Your task to perform on an android device: turn on improve location accuracy Image 0: 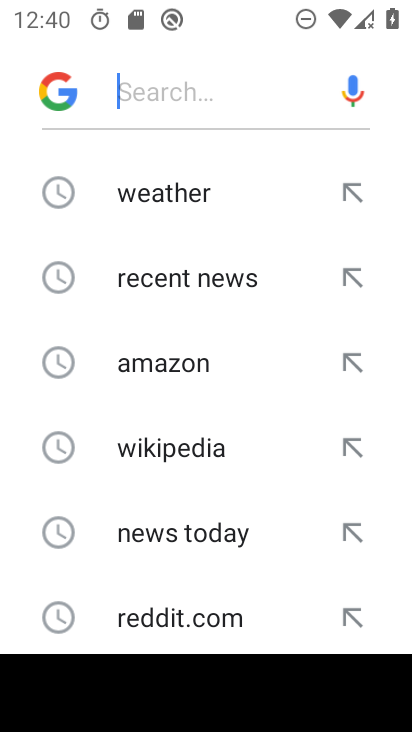
Step 0: press home button
Your task to perform on an android device: turn on improve location accuracy Image 1: 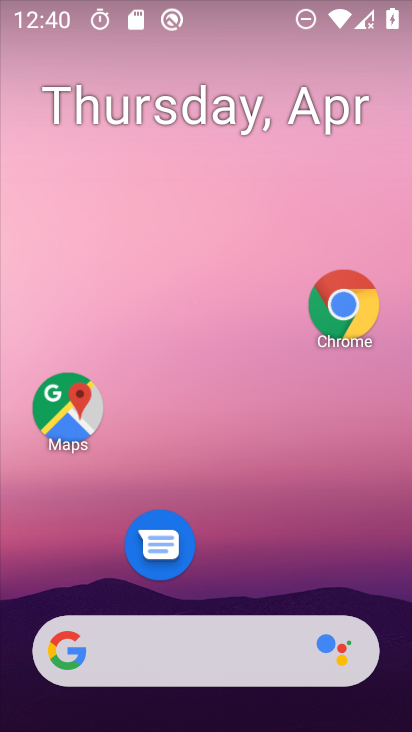
Step 1: drag from (258, 418) to (266, 125)
Your task to perform on an android device: turn on improve location accuracy Image 2: 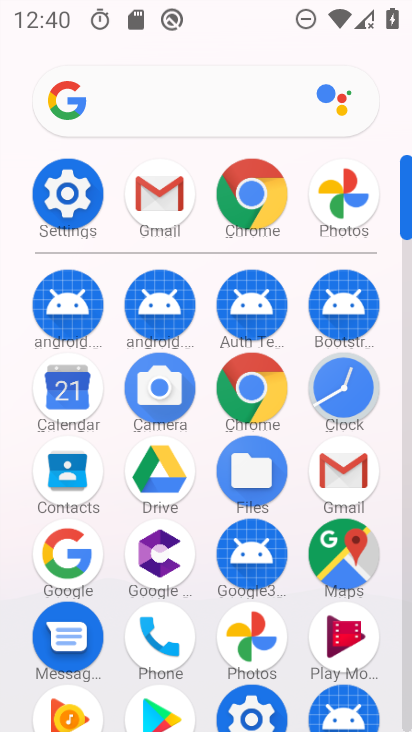
Step 2: click (69, 196)
Your task to perform on an android device: turn on improve location accuracy Image 3: 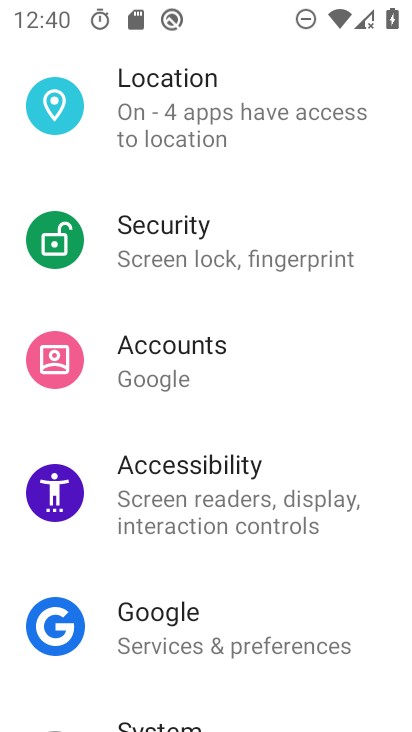
Step 3: drag from (205, 475) to (226, 163)
Your task to perform on an android device: turn on improve location accuracy Image 4: 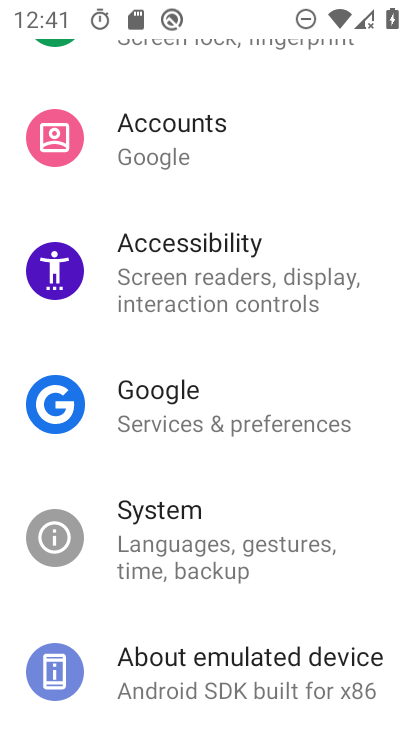
Step 4: drag from (189, 409) to (170, 720)
Your task to perform on an android device: turn on improve location accuracy Image 5: 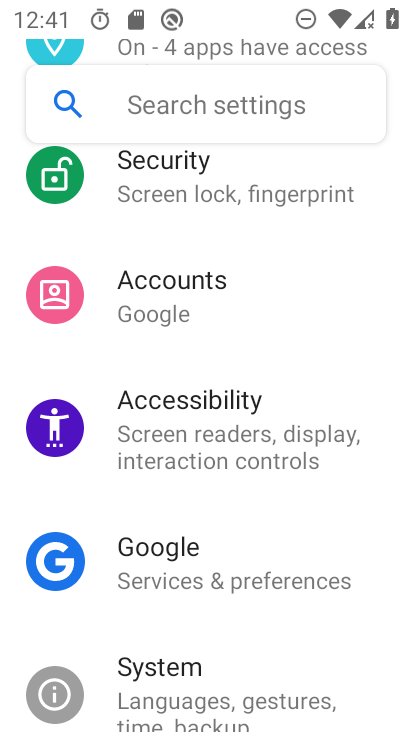
Step 5: drag from (199, 360) to (172, 699)
Your task to perform on an android device: turn on improve location accuracy Image 6: 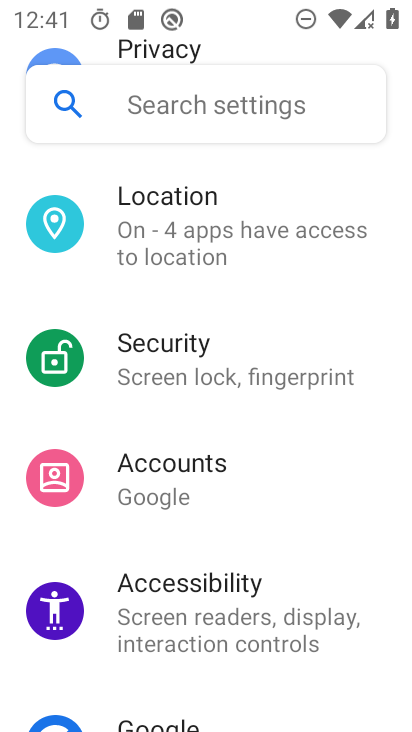
Step 6: drag from (203, 337) to (203, 626)
Your task to perform on an android device: turn on improve location accuracy Image 7: 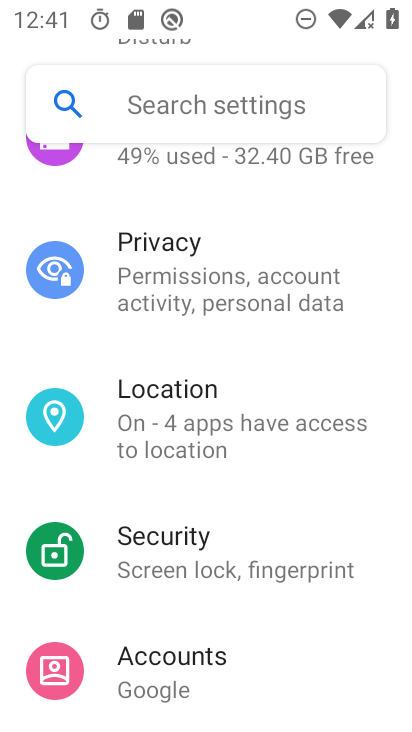
Step 7: click (245, 416)
Your task to perform on an android device: turn on improve location accuracy Image 8: 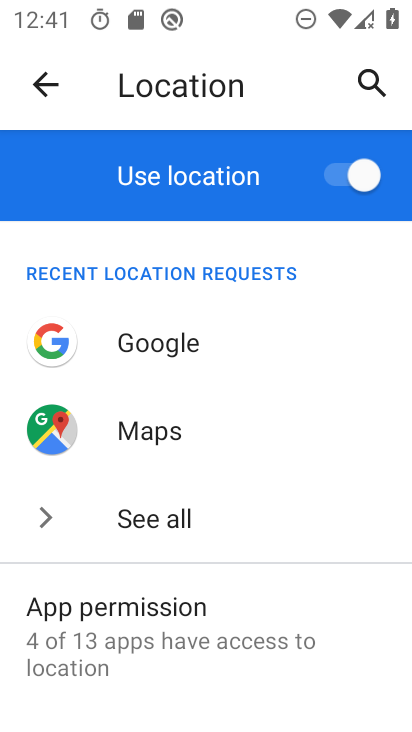
Step 8: drag from (226, 608) to (282, 191)
Your task to perform on an android device: turn on improve location accuracy Image 9: 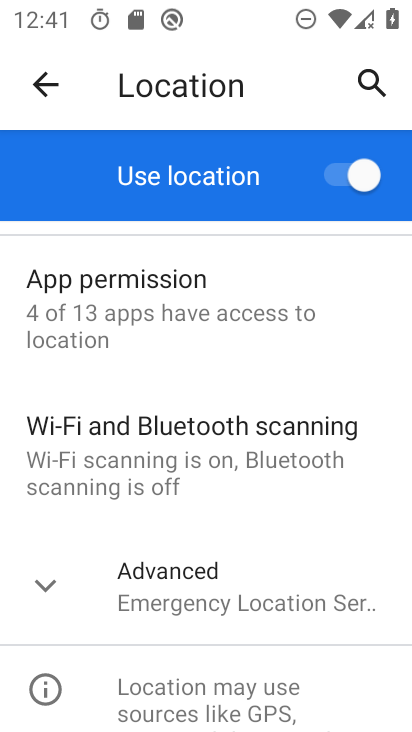
Step 9: click (244, 602)
Your task to perform on an android device: turn on improve location accuracy Image 10: 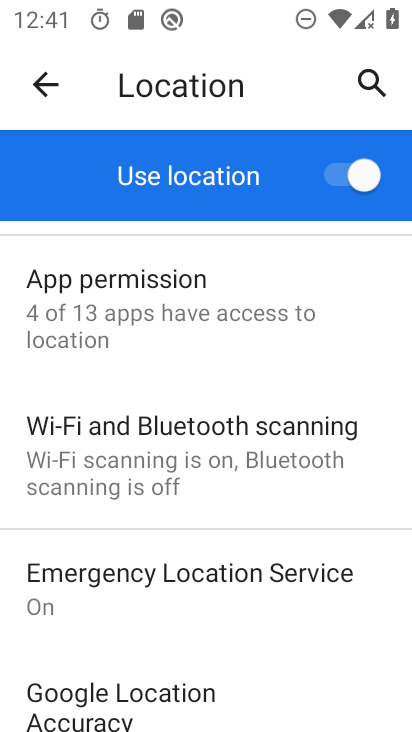
Step 10: drag from (244, 588) to (258, 292)
Your task to perform on an android device: turn on improve location accuracy Image 11: 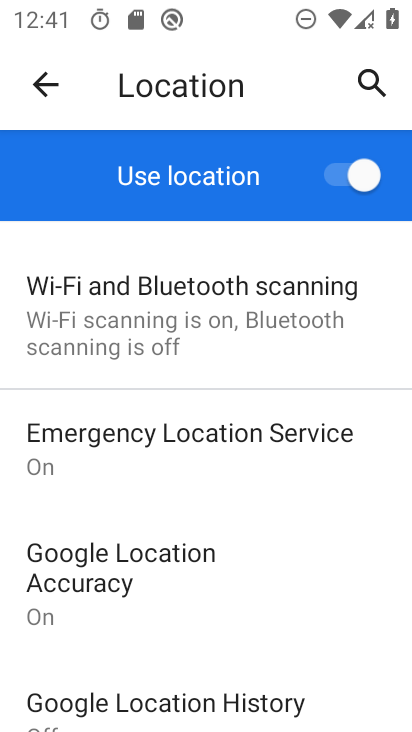
Step 11: drag from (186, 596) to (235, 353)
Your task to perform on an android device: turn on improve location accuracy Image 12: 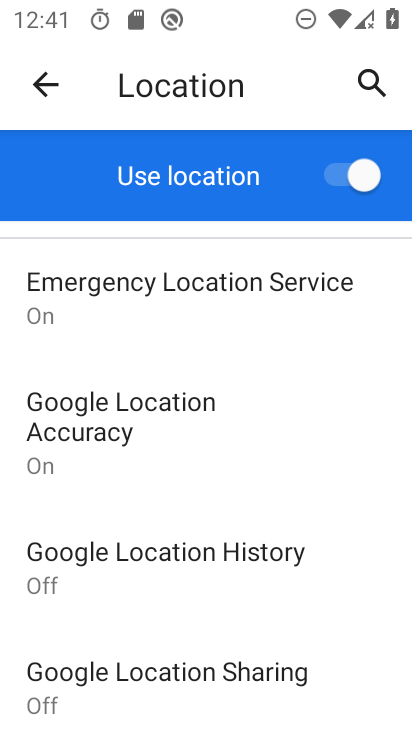
Step 12: click (234, 434)
Your task to perform on an android device: turn on improve location accuracy Image 13: 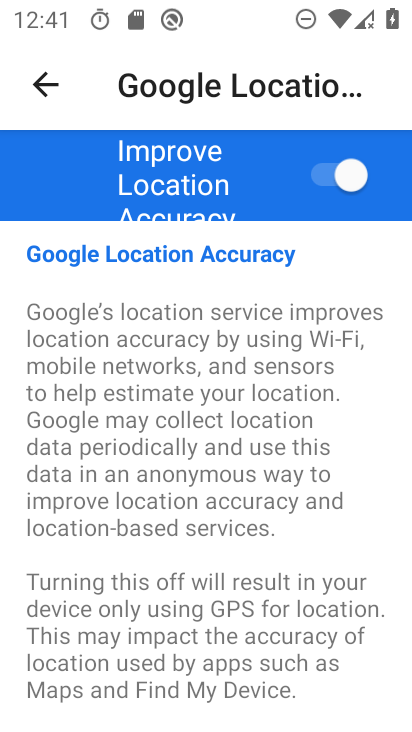
Step 13: task complete